Your task to perform on an android device: Go to sound settings Image 0: 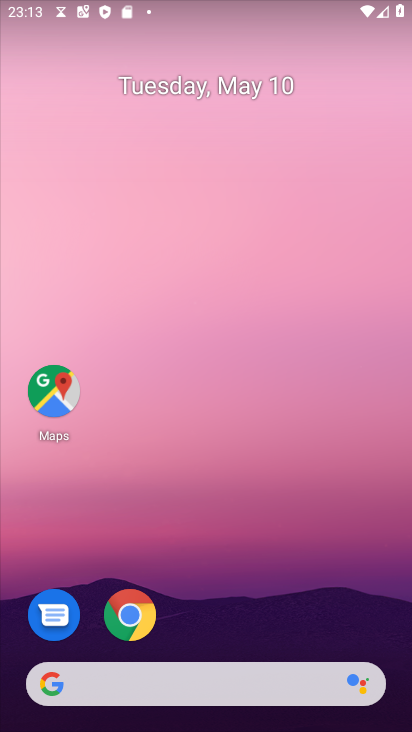
Step 0: drag from (240, 509) to (189, 20)
Your task to perform on an android device: Go to sound settings Image 1: 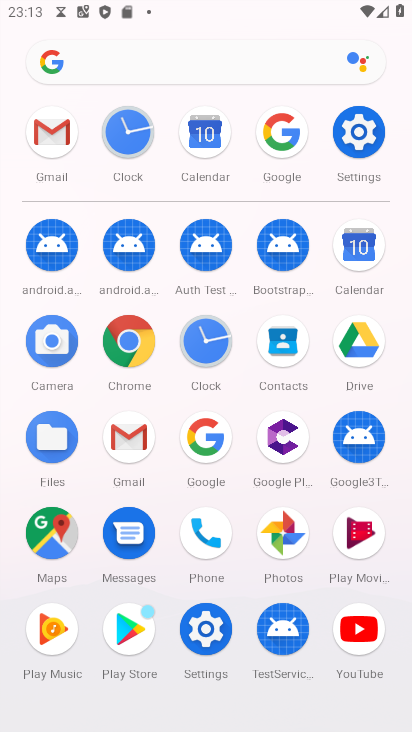
Step 1: click (359, 135)
Your task to perform on an android device: Go to sound settings Image 2: 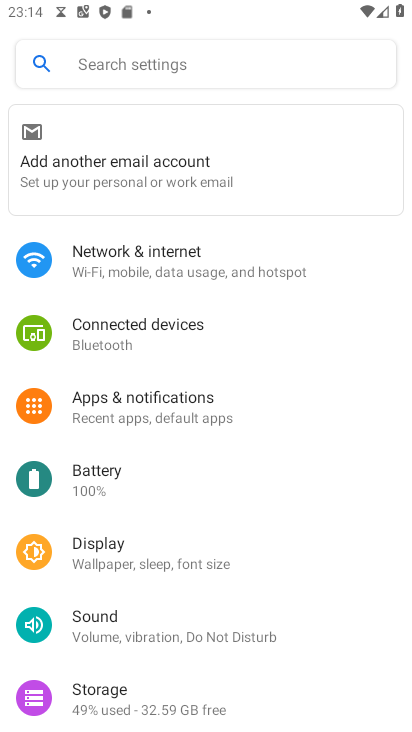
Step 2: click (99, 620)
Your task to perform on an android device: Go to sound settings Image 3: 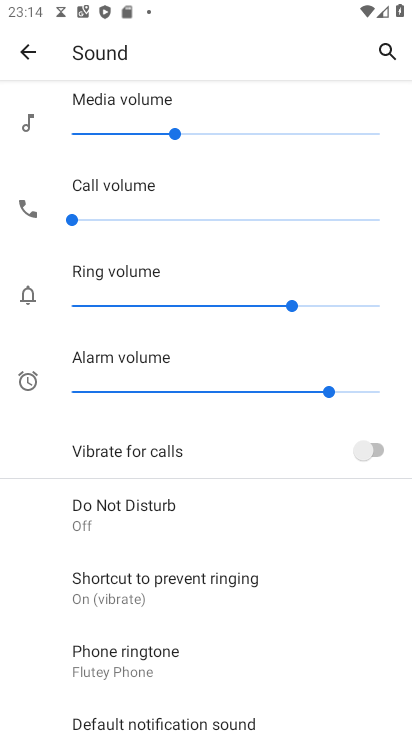
Step 3: task complete